Your task to perform on an android device: Show me the alarms in the clock app Image 0: 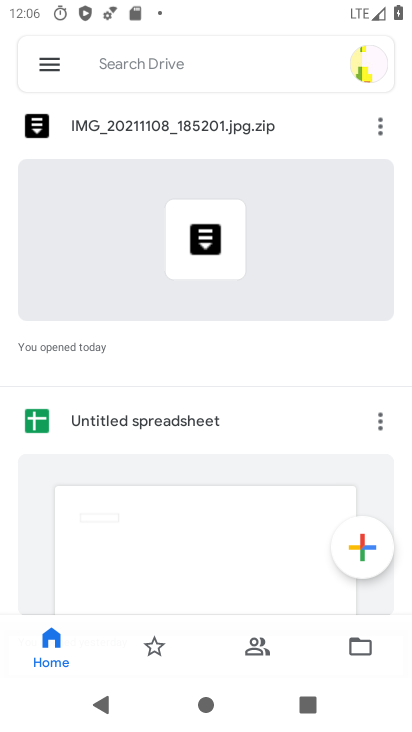
Step 0: press home button
Your task to perform on an android device: Show me the alarms in the clock app Image 1: 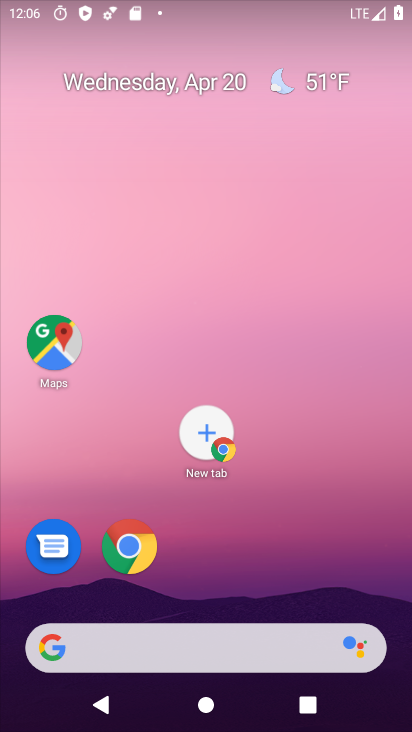
Step 1: drag from (256, 586) to (217, 184)
Your task to perform on an android device: Show me the alarms in the clock app Image 2: 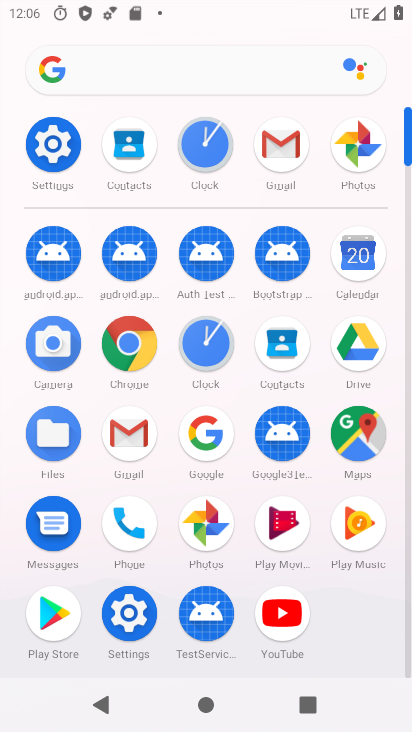
Step 2: click (202, 144)
Your task to perform on an android device: Show me the alarms in the clock app Image 3: 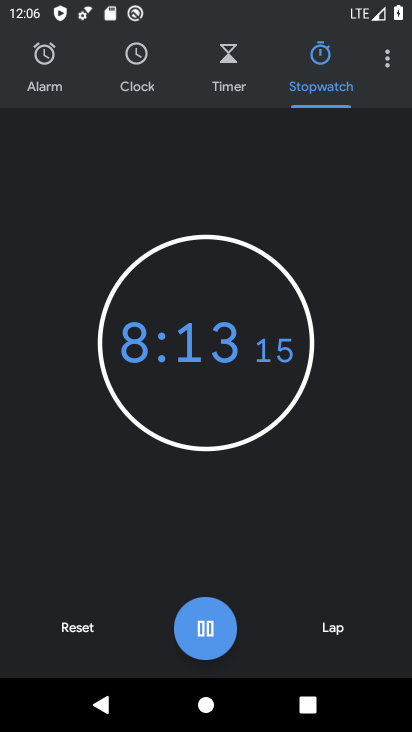
Step 3: click (40, 57)
Your task to perform on an android device: Show me the alarms in the clock app Image 4: 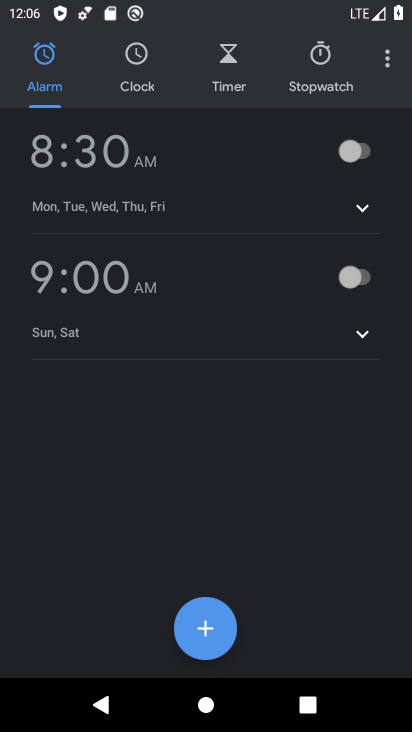
Step 4: task complete